Your task to perform on an android device: turn off notifications in google photos Image 0: 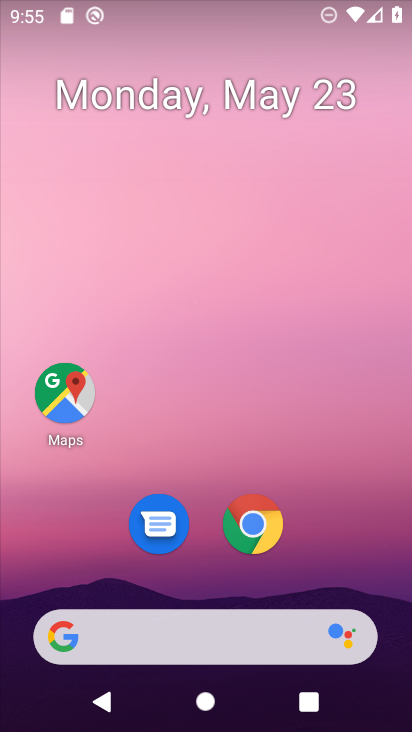
Step 0: drag from (220, 442) to (268, 12)
Your task to perform on an android device: turn off notifications in google photos Image 1: 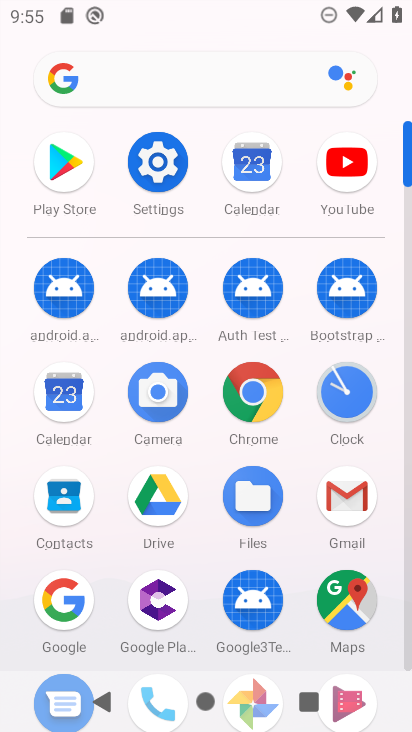
Step 1: click (165, 167)
Your task to perform on an android device: turn off notifications in google photos Image 2: 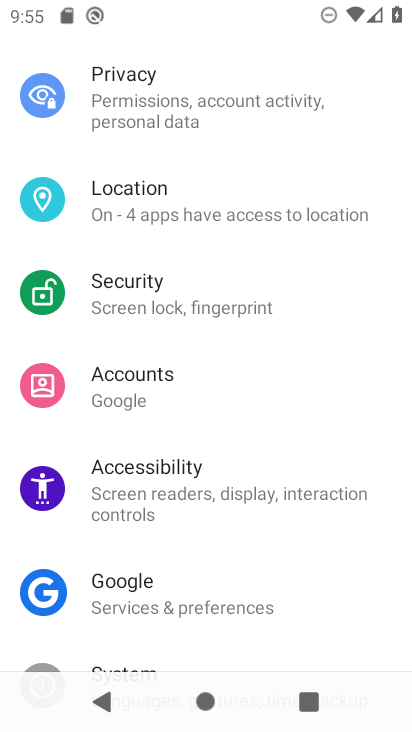
Step 2: drag from (250, 164) to (247, 619)
Your task to perform on an android device: turn off notifications in google photos Image 3: 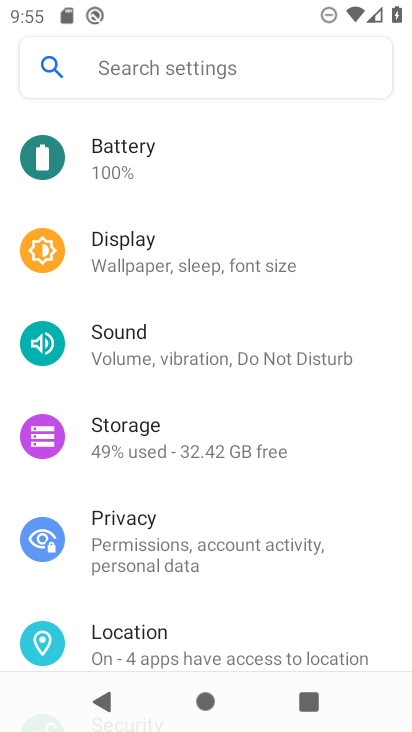
Step 3: drag from (228, 227) to (233, 516)
Your task to perform on an android device: turn off notifications in google photos Image 4: 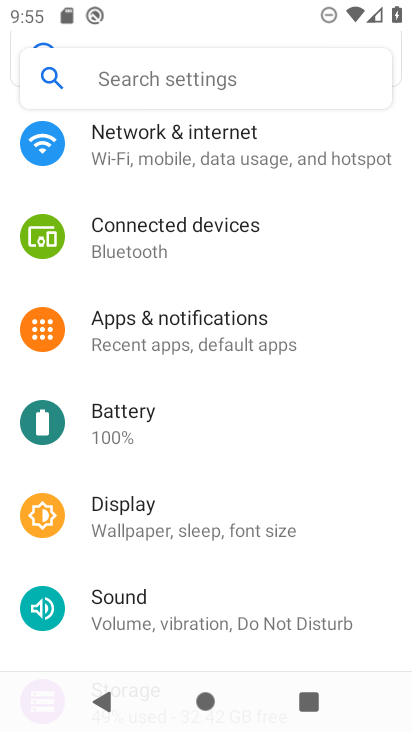
Step 4: click (214, 312)
Your task to perform on an android device: turn off notifications in google photos Image 5: 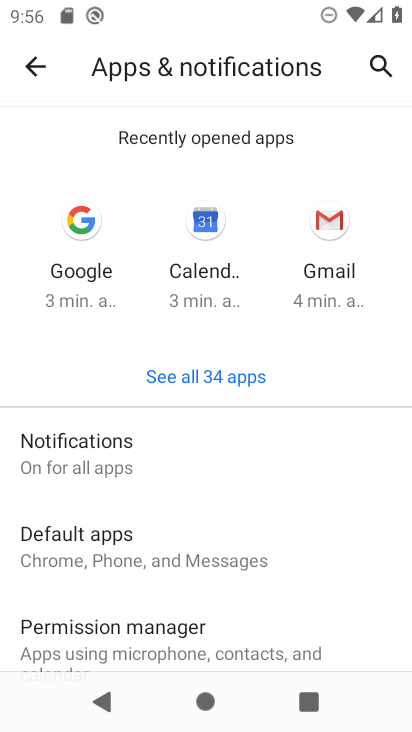
Step 5: click (217, 363)
Your task to perform on an android device: turn off notifications in google photos Image 6: 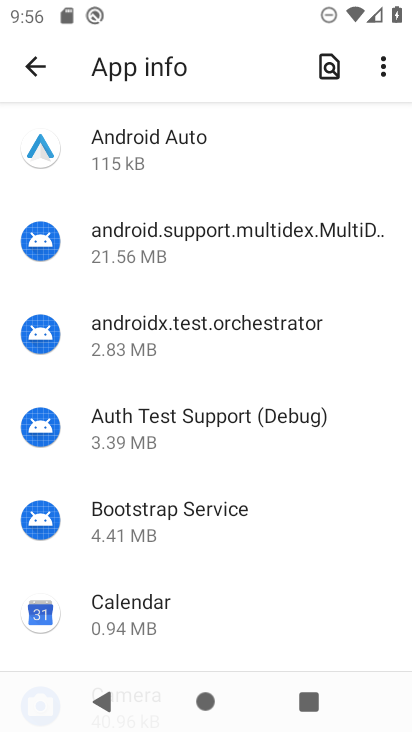
Step 6: drag from (240, 589) to (243, 149)
Your task to perform on an android device: turn off notifications in google photos Image 7: 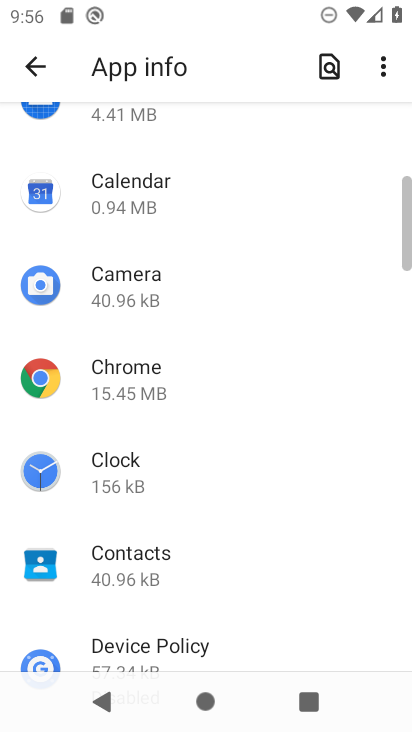
Step 7: click (246, 131)
Your task to perform on an android device: turn off notifications in google photos Image 8: 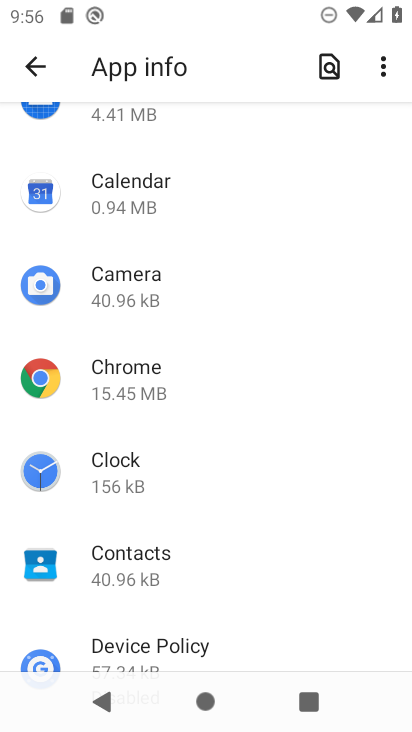
Step 8: drag from (189, 572) to (228, 106)
Your task to perform on an android device: turn off notifications in google photos Image 9: 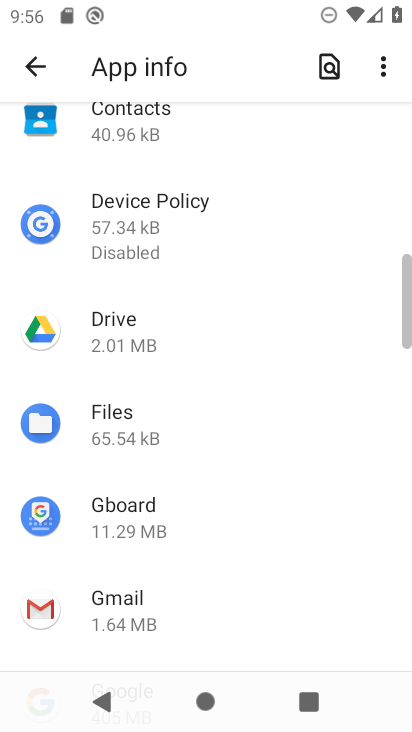
Step 9: drag from (163, 546) to (232, 112)
Your task to perform on an android device: turn off notifications in google photos Image 10: 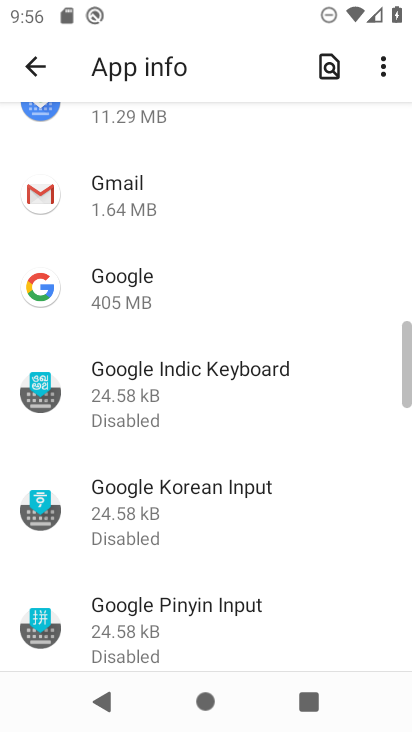
Step 10: drag from (194, 619) to (245, 108)
Your task to perform on an android device: turn off notifications in google photos Image 11: 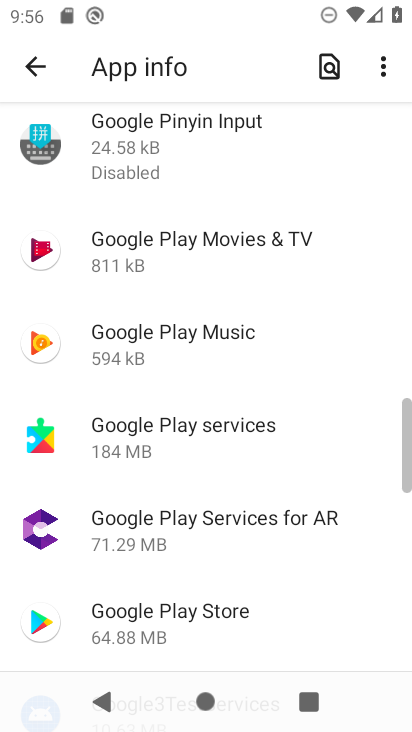
Step 11: drag from (225, 578) to (242, 257)
Your task to perform on an android device: turn off notifications in google photos Image 12: 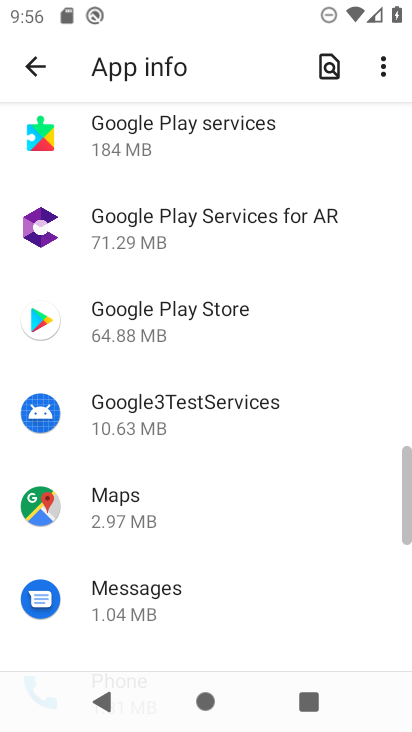
Step 12: drag from (233, 566) to (231, 242)
Your task to perform on an android device: turn off notifications in google photos Image 13: 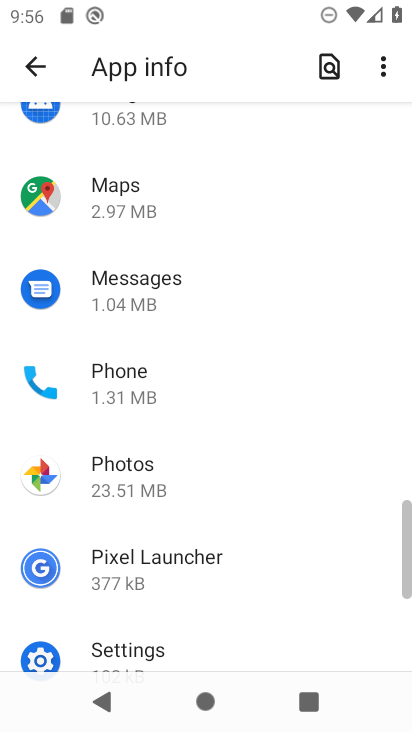
Step 13: click (137, 468)
Your task to perform on an android device: turn off notifications in google photos Image 14: 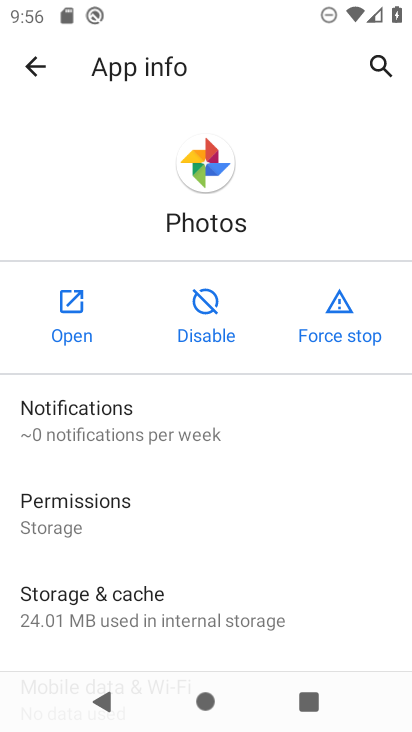
Step 14: click (145, 421)
Your task to perform on an android device: turn off notifications in google photos Image 15: 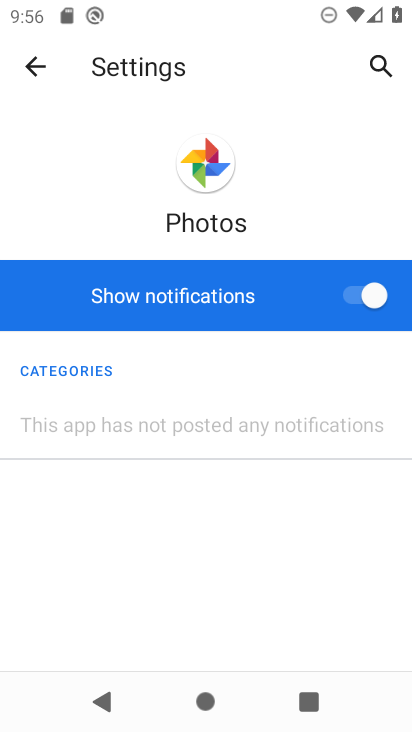
Step 15: click (356, 297)
Your task to perform on an android device: turn off notifications in google photos Image 16: 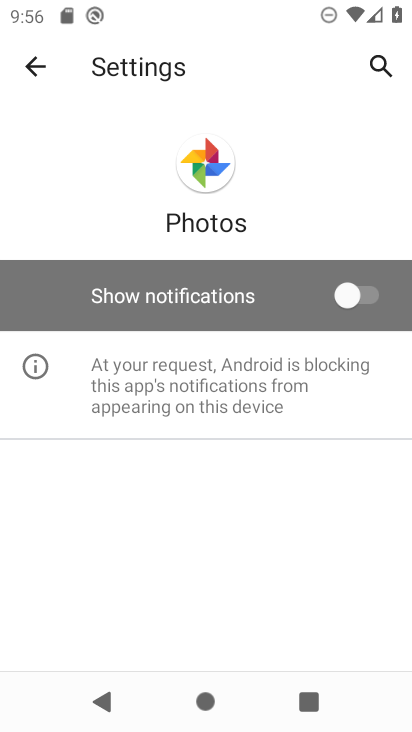
Step 16: task complete